Your task to perform on an android device: toggle show notifications on the lock screen Image 0: 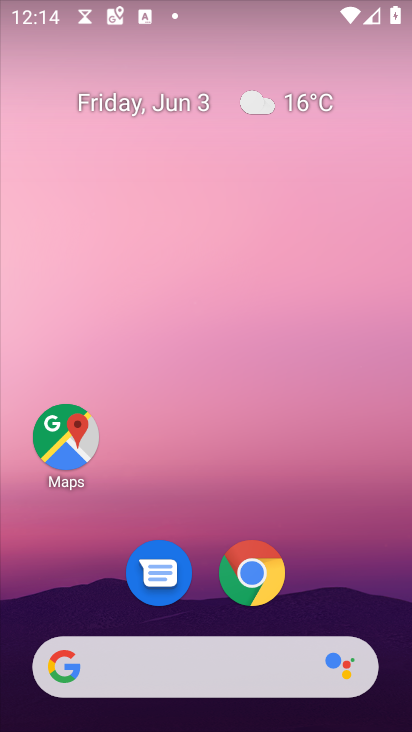
Step 0: drag from (393, 605) to (272, 9)
Your task to perform on an android device: toggle show notifications on the lock screen Image 1: 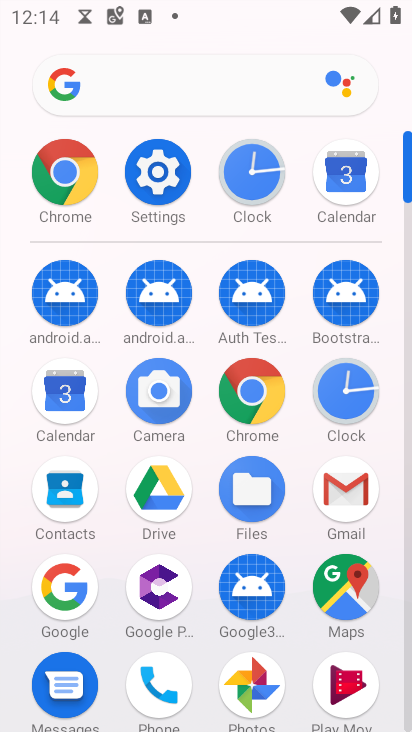
Step 1: click (178, 157)
Your task to perform on an android device: toggle show notifications on the lock screen Image 2: 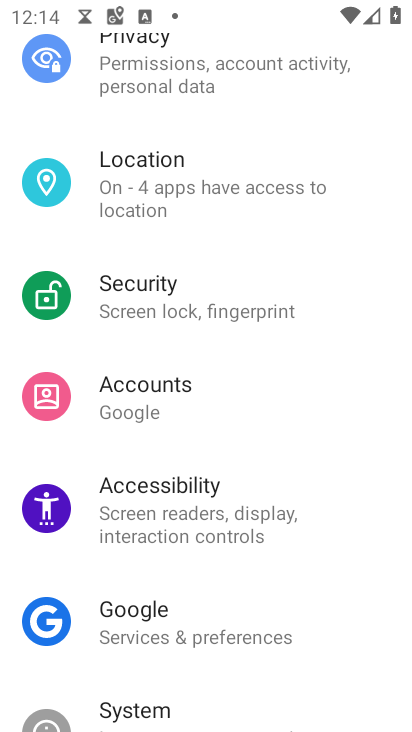
Step 2: drag from (178, 157) to (266, 698)
Your task to perform on an android device: toggle show notifications on the lock screen Image 3: 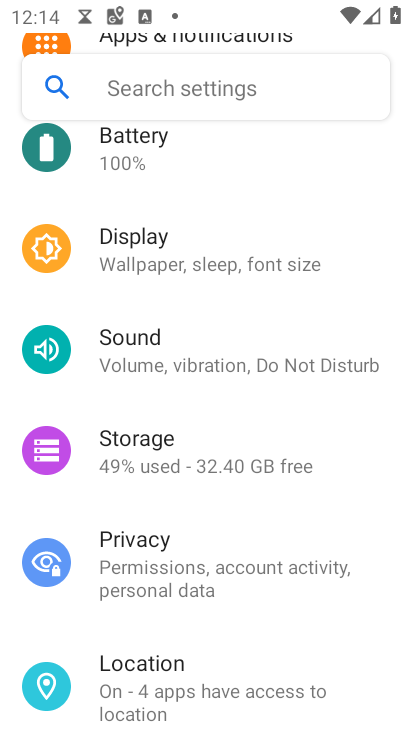
Step 3: drag from (220, 166) to (306, 689)
Your task to perform on an android device: toggle show notifications on the lock screen Image 4: 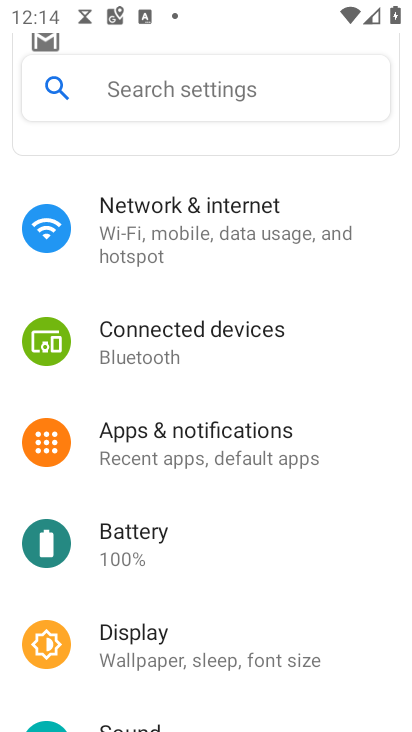
Step 4: drag from (241, 278) to (315, 635)
Your task to perform on an android device: toggle show notifications on the lock screen Image 5: 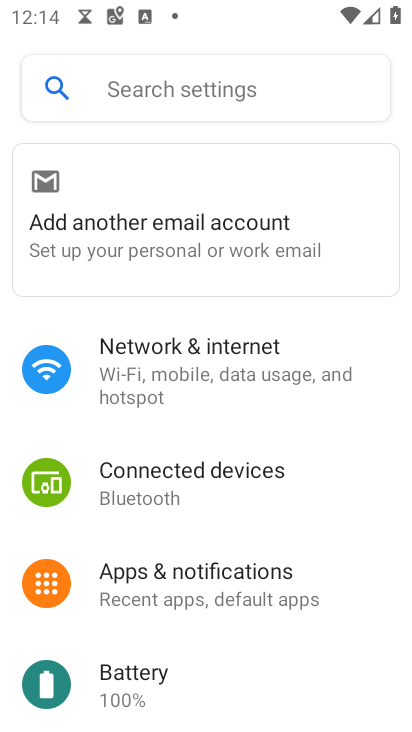
Step 5: click (265, 578)
Your task to perform on an android device: toggle show notifications on the lock screen Image 6: 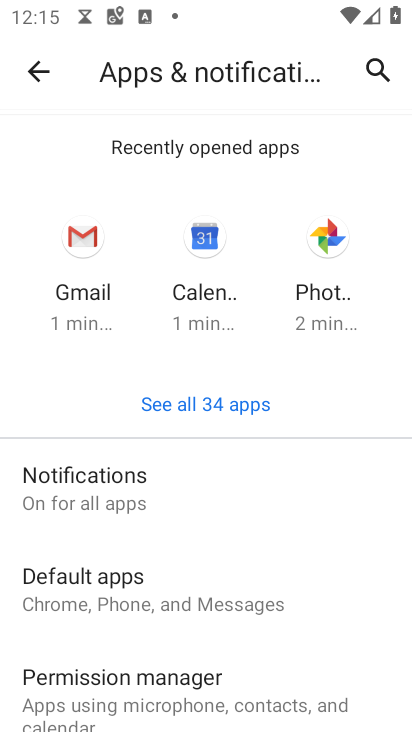
Step 6: click (131, 497)
Your task to perform on an android device: toggle show notifications on the lock screen Image 7: 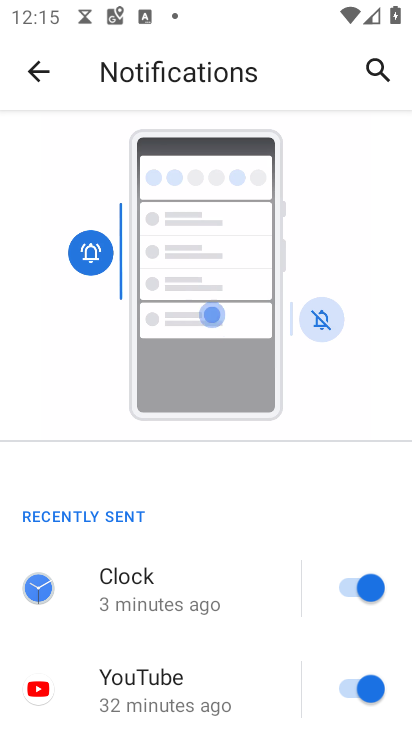
Step 7: drag from (174, 637) to (158, 205)
Your task to perform on an android device: toggle show notifications on the lock screen Image 8: 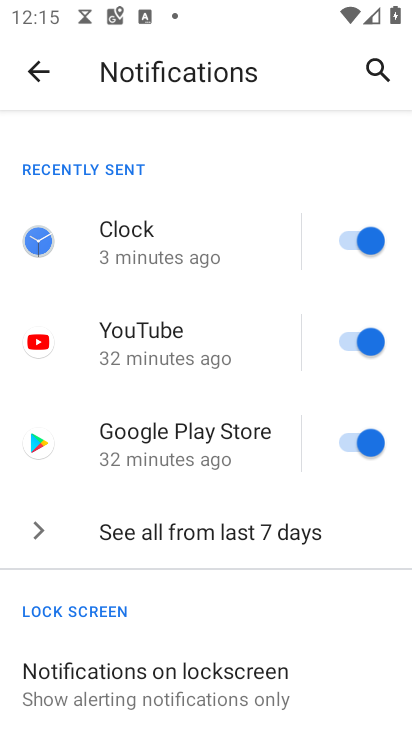
Step 8: click (149, 673)
Your task to perform on an android device: toggle show notifications on the lock screen Image 9: 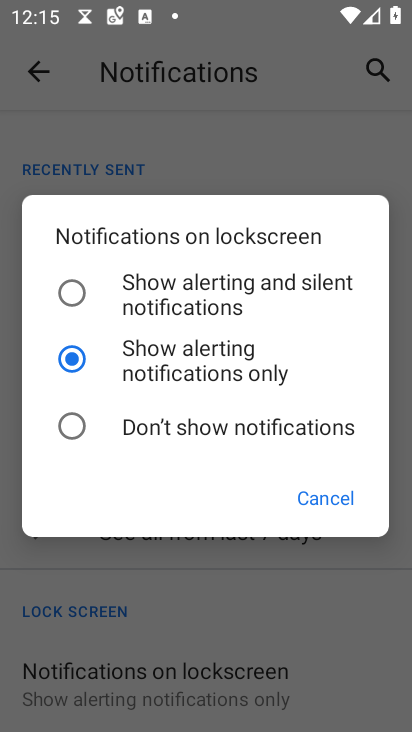
Step 9: click (62, 298)
Your task to perform on an android device: toggle show notifications on the lock screen Image 10: 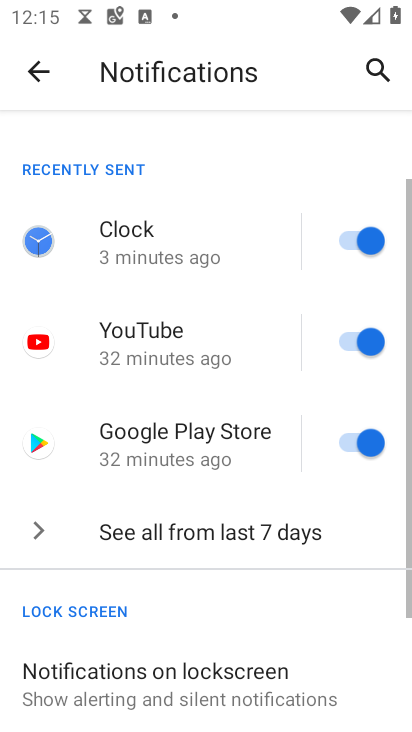
Step 10: task complete